Your task to perform on an android device: toggle improve location accuracy Image 0: 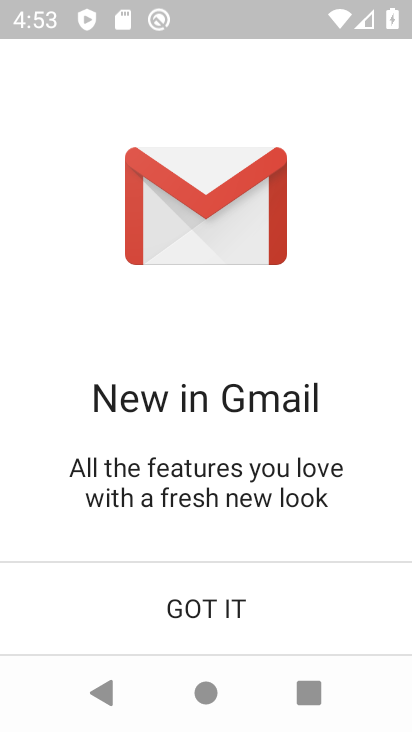
Step 0: press home button
Your task to perform on an android device: toggle improve location accuracy Image 1: 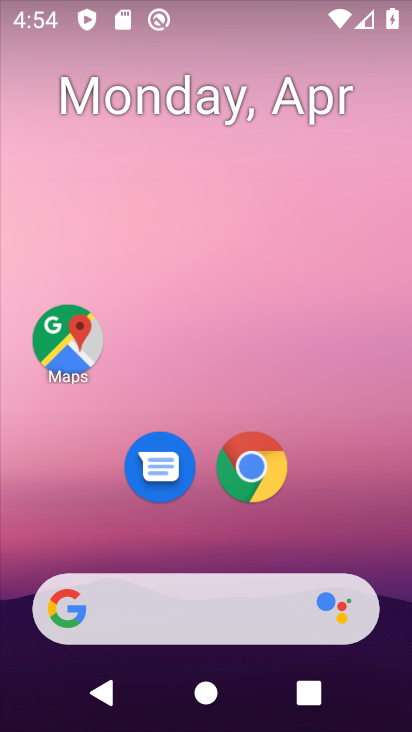
Step 1: drag from (309, 491) to (319, 107)
Your task to perform on an android device: toggle improve location accuracy Image 2: 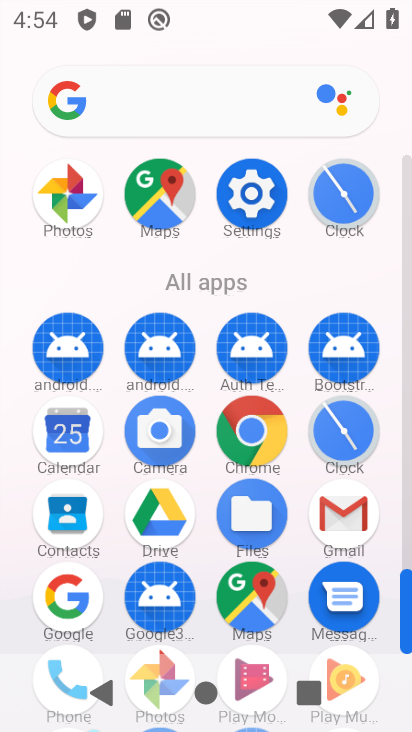
Step 2: click (247, 216)
Your task to perform on an android device: toggle improve location accuracy Image 3: 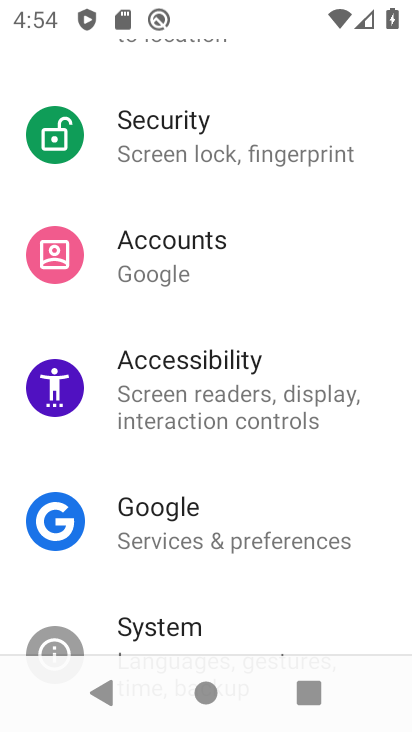
Step 3: drag from (239, 599) to (260, 218)
Your task to perform on an android device: toggle improve location accuracy Image 4: 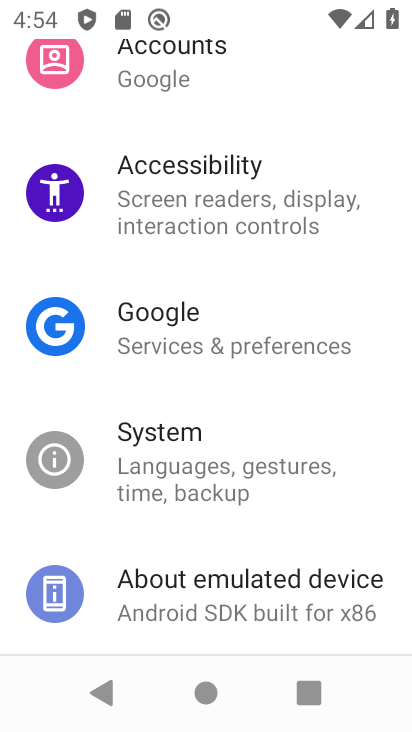
Step 4: drag from (313, 196) to (350, 98)
Your task to perform on an android device: toggle improve location accuracy Image 5: 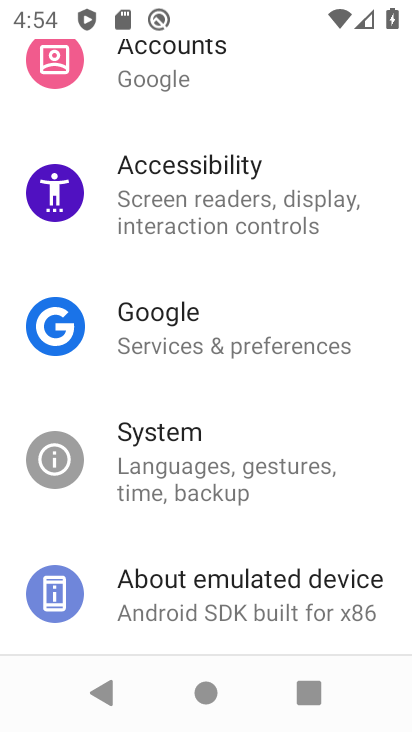
Step 5: drag from (268, 169) to (298, 664)
Your task to perform on an android device: toggle improve location accuracy Image 6: 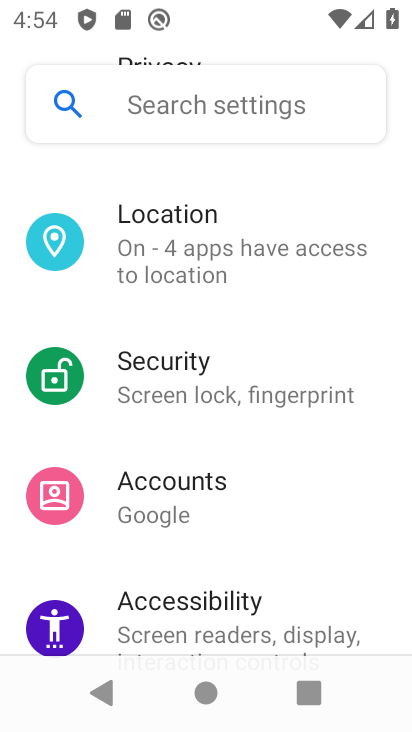
Step 6: click (280, 277)
Your task to perform on an android device: toggle improve location accuracy Image 7: 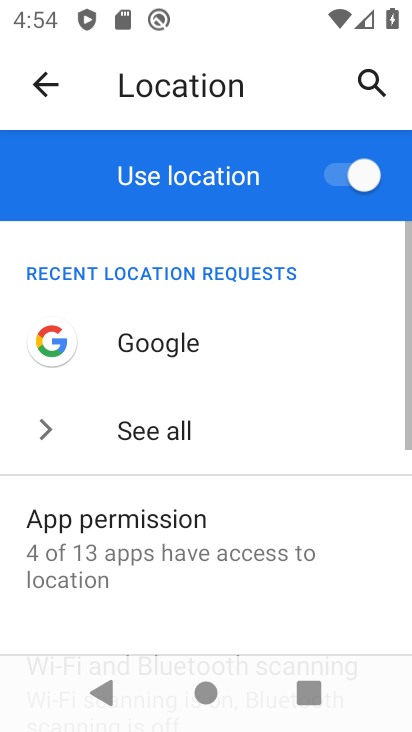
Step 7: drag from (301, 637) to (349, 95)
Your task to perform on an android device: toggle improve location accuracy Image 8: 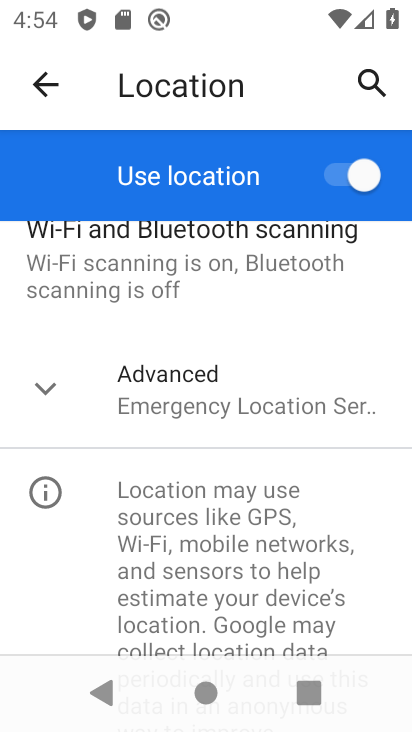
Step 8: click (232, 407)
Your task to perform on an android device: toggle improve location accuracy Image 9: 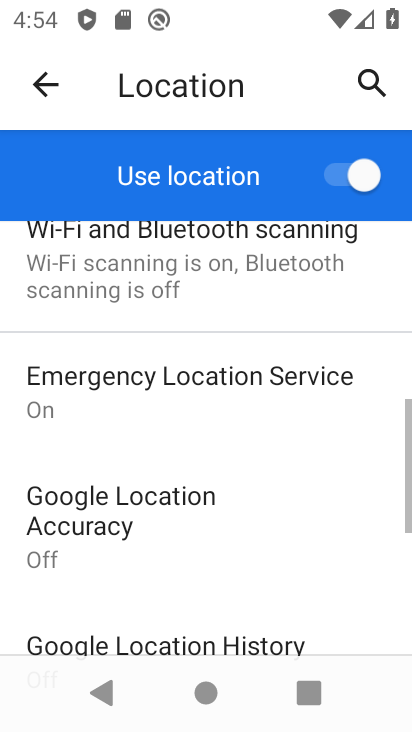
Step 9: drag from (233, 632) to (272, 246)
Your task to perform on an android device: toggle improve location accuracy Image 10: 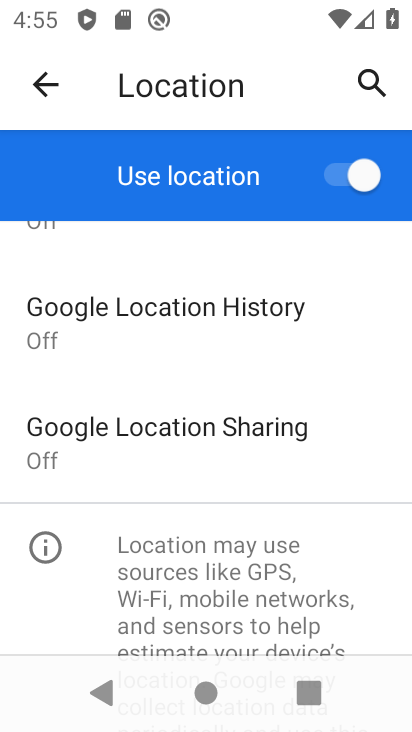
Step 10: drag from (215, 326) to (313, 725)
Your task to perform on an android device: toggle improve location accuracy Image 11: 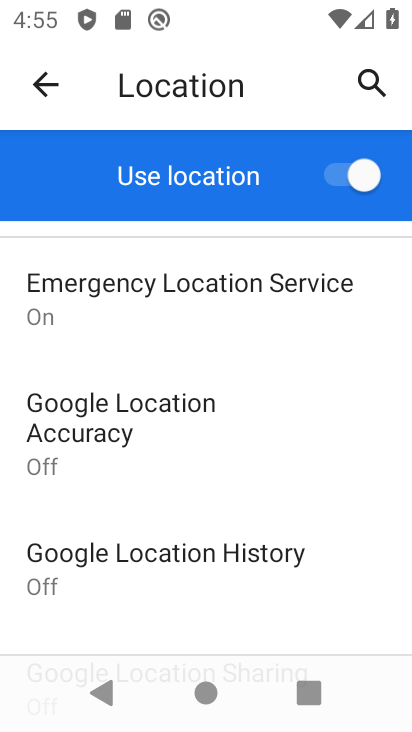
Step 11: click (155, 422)
Your task to perform on an android device: toggle improve location accuracy Image 12: 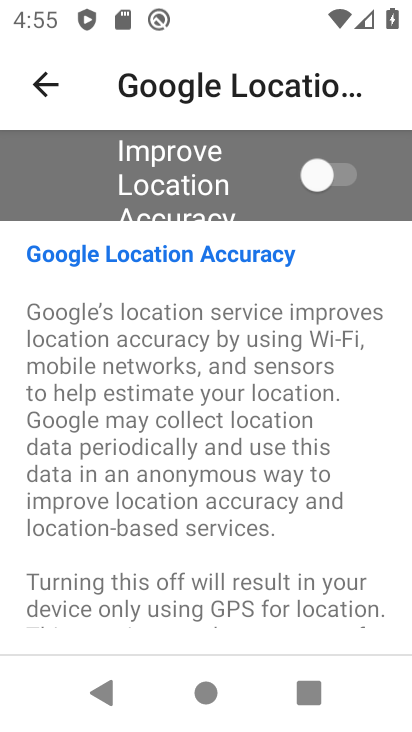
Step 12: click (345, 169)
Your task to perform on an android device: toggle improve location accuracy Image 13: 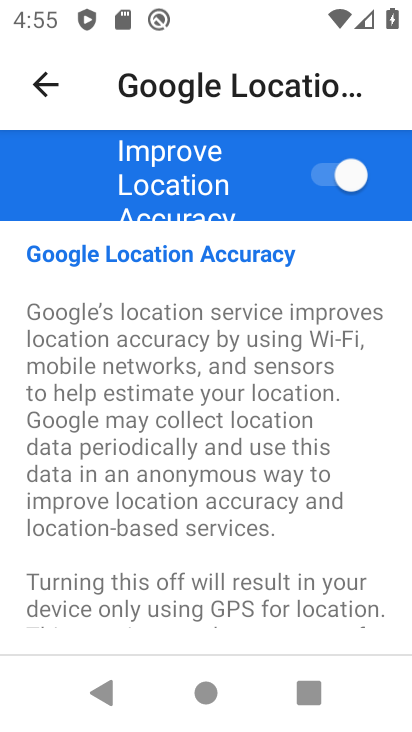
Step 13: task complete